Your task to perform on an android device: Go to privacy settings Image 0: 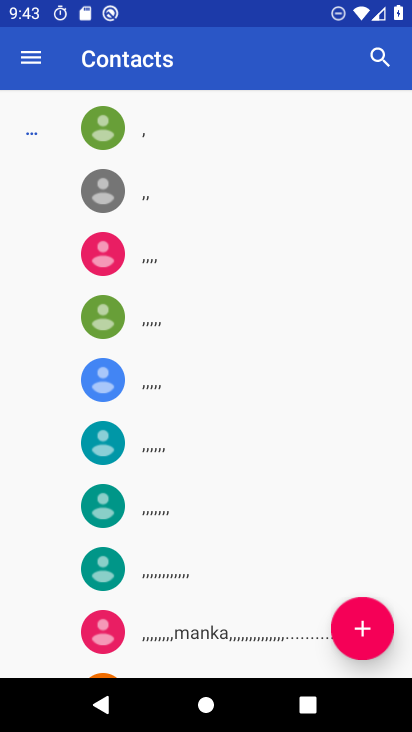
Step 0: press home button
Your task to perform on an android device: Go to privacy settings Image 1: 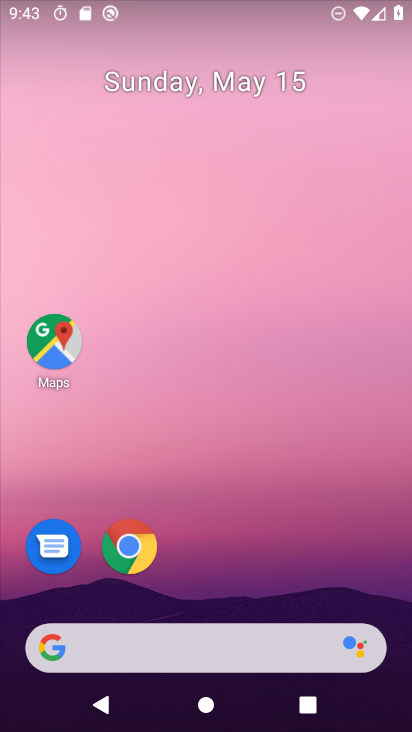
Step 1: drag from (236, 555) to (238, 73)
Your task to perform on an android device: Go to privacy settings Image 2: 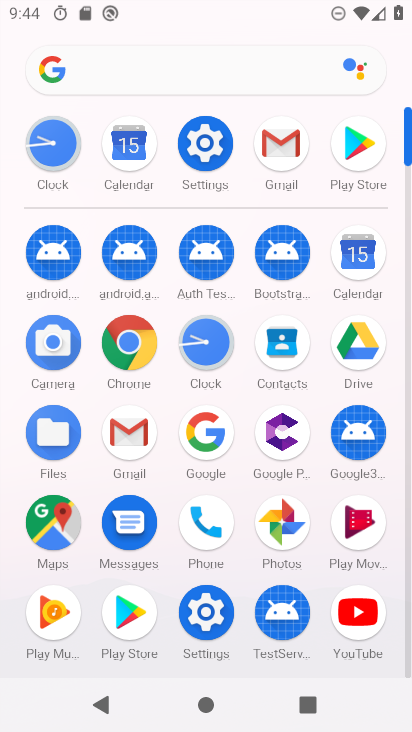
Step 2: click (216, 139)
Your task to perform on an android device: Go to privacy settings Image 3: 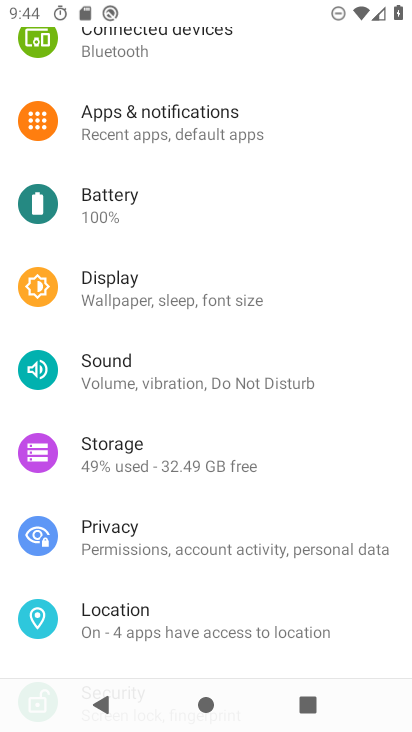
Step 3: click (208, 545)
Your task to perform on an android device: Go to privacy settings Image 4: 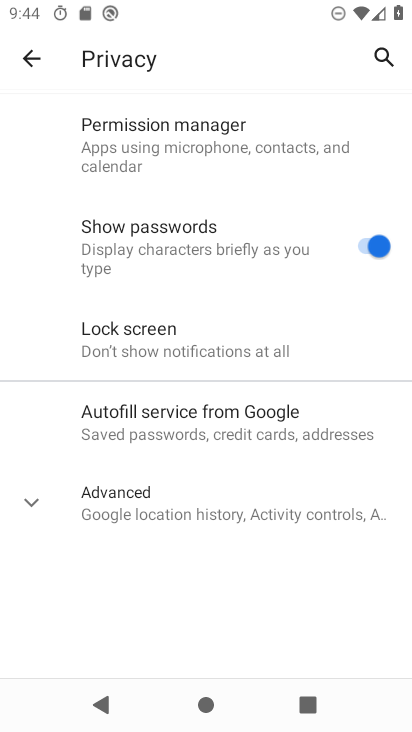
Step 4: task complete